Your task to perform on an android device: see creations saved in the google photos Image 0: 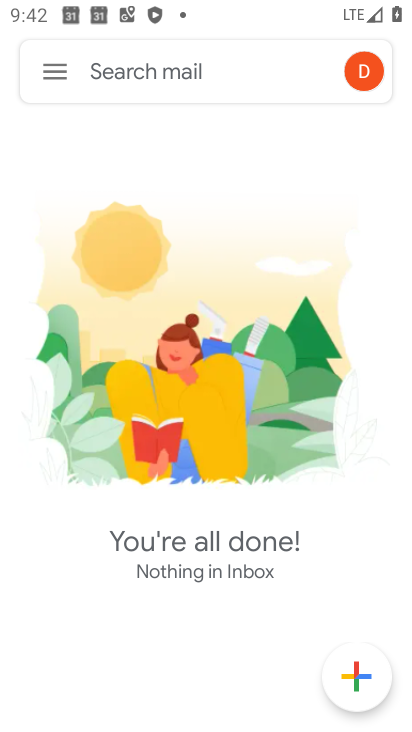
Step 0: press home button
Your task to perform on an android device: see creations saved in the google photos Image 1: 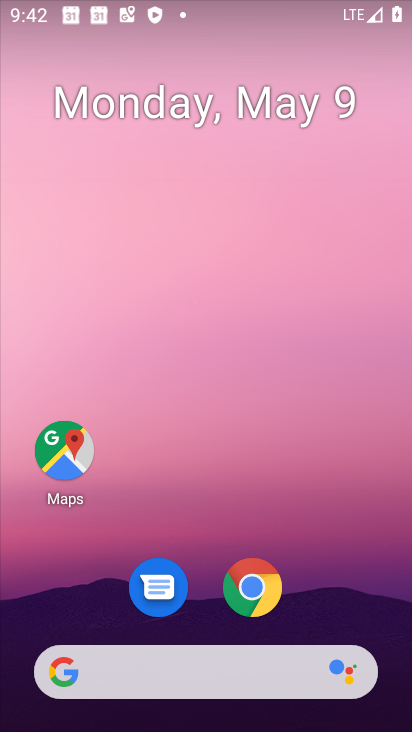
Step 1: drag from (238, 515) to (406, 139)
Your task to perform on an android device: see creations saved in the google photos Image 2: 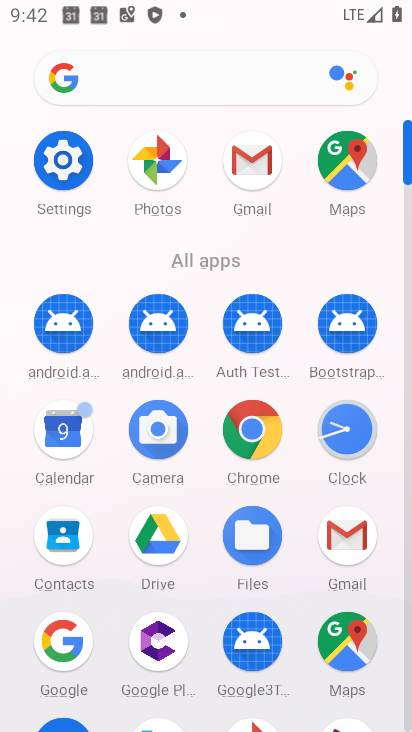
Step 2: click (142, 166)
Your task to perform on an android device: see creations saved in the google photos Image 3: 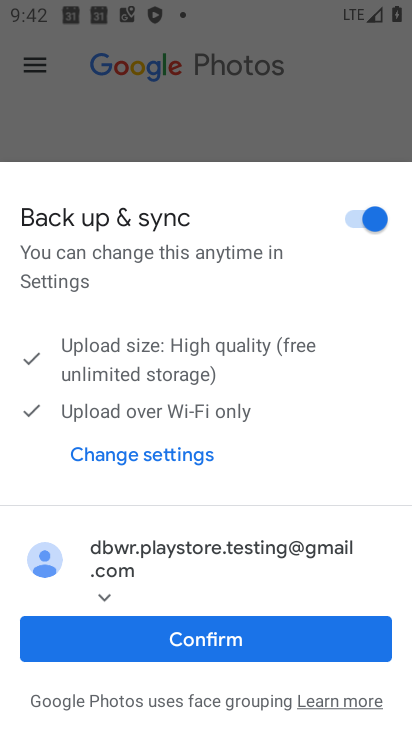
Step 3: click (138, 629)
Your task to perform on an android device: see creations saved in the google photos Image 4: 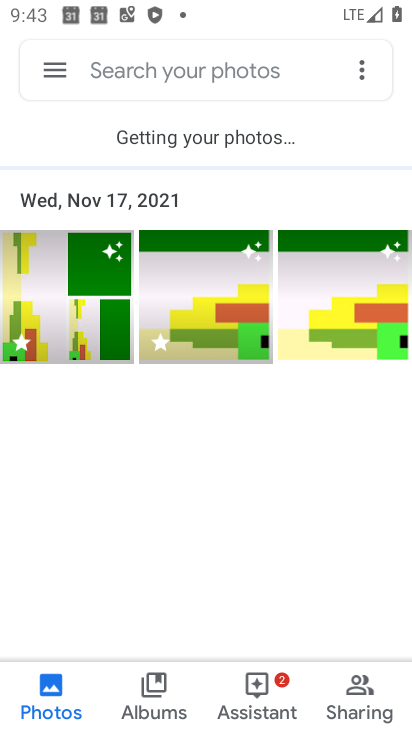
Step 4: click (375, 61)
Your task to perform on an android device: see creations saved in the google photos Image 5: 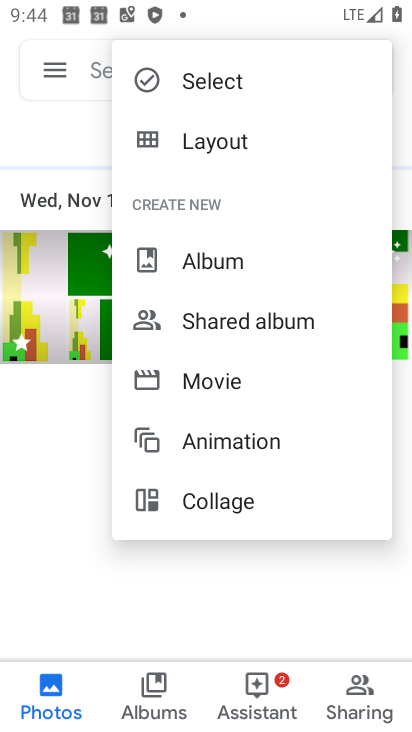
Step 5: click (165, 711)
Your task to perform on an android device: see creations saved in the google photos Image 6: 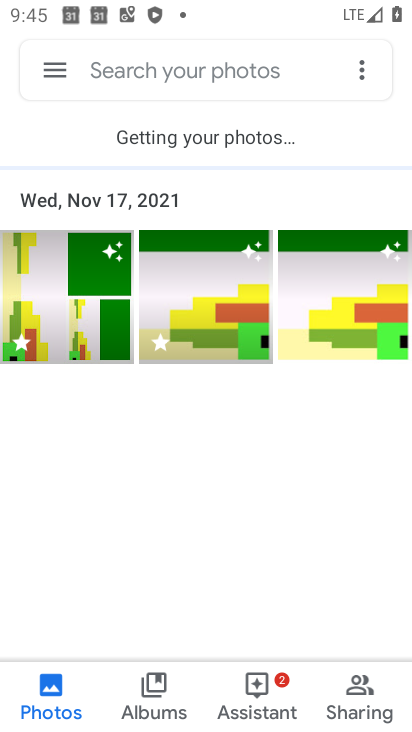
Step 6: click (50, 58)
Your task to perform on an android device: see creations saved in the google photos Image 7: 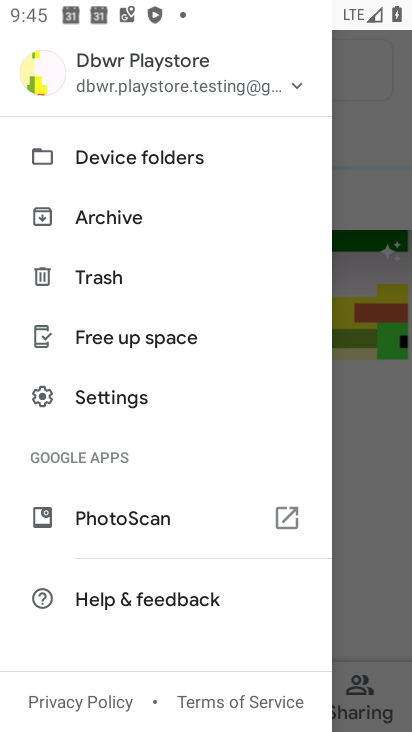
Step 7: task complete